Your task to perform on an android device: toggle javascript in the chrome app Image 0: 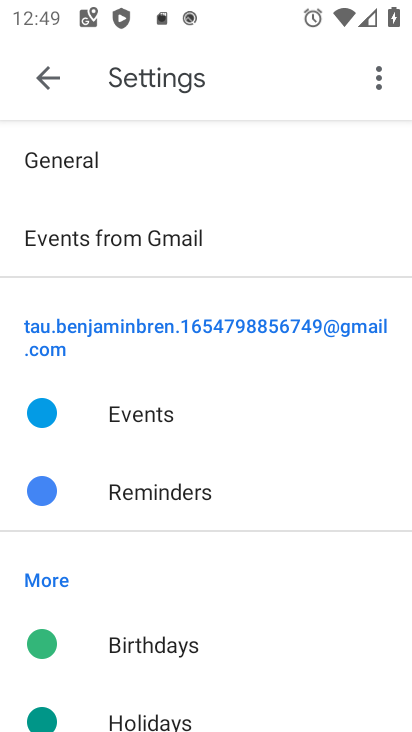
Step 0: press home button
Your task to perform on an android device: toggle javascript in the chrome app Image 1: 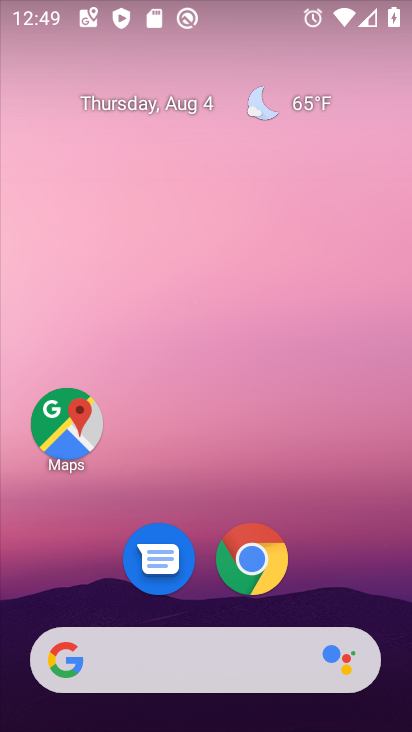
Step 1: click (254, 558)
Your task to perform on an android device: toggle javascript in the chrome app Image 2: 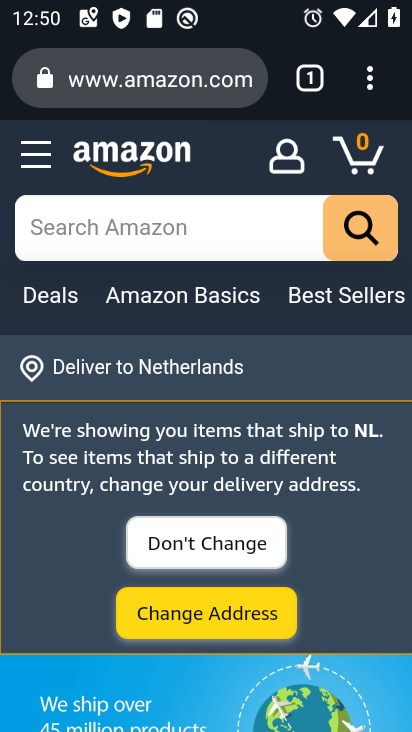
Step 2: click (369, 82)
Your task to perform on an android device: toggle javascript in the chrome app Image 3: 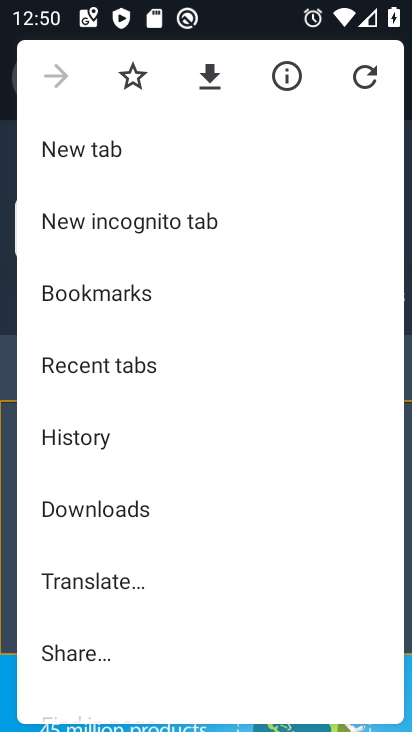
Step 3: drag from (127, 601) to (193, 489)
Your task to perform on an android device: toggle javascript in the chrome app Image 4: 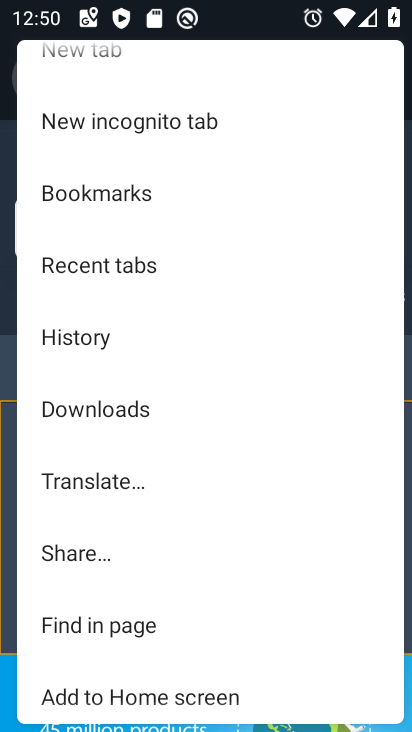
Step 4: drag from (119, 672) to (222, 555)
Your task to perform on an android device: toggle javascript in the chrome app Image 5: 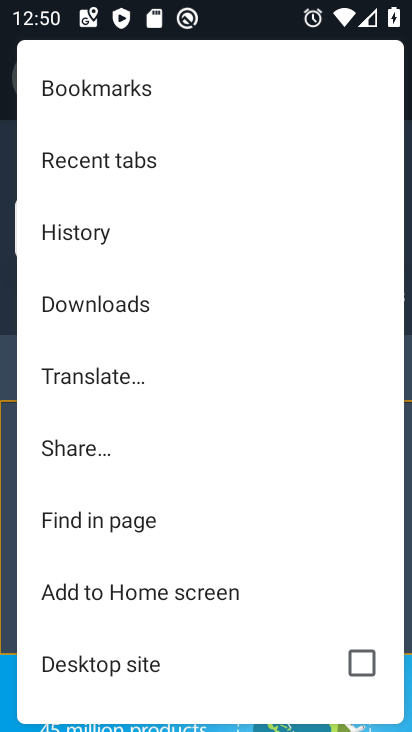
Step 5: drag from (163, 622) to (286, 452)
Your task to perform on an android device: toggle javascript in the chrome app Image 6: 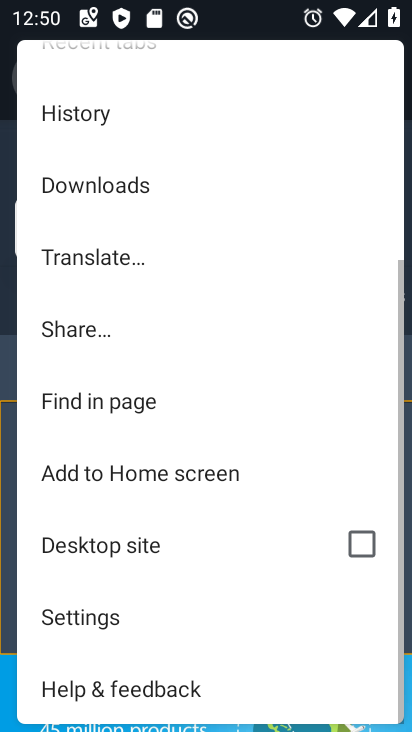
Step 6: click (111, 624)
Your task to perform on an android device: toggle javascript in the chrome app Image 7: 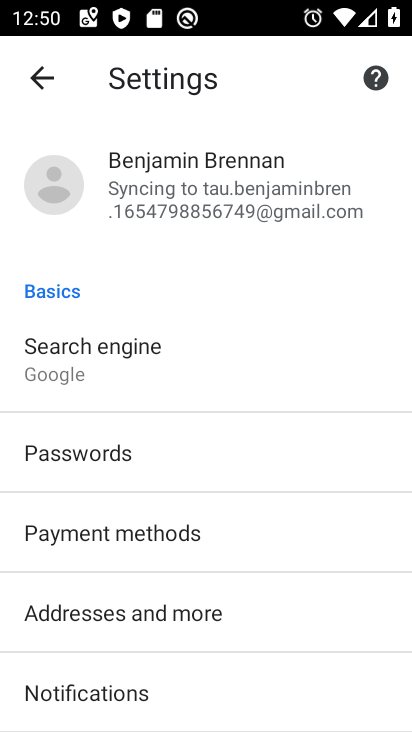
Step 7: drag from (125, 663) to (216, 547)
Your task to perform on an android device: toggle javascript in the chrome app Image 8: 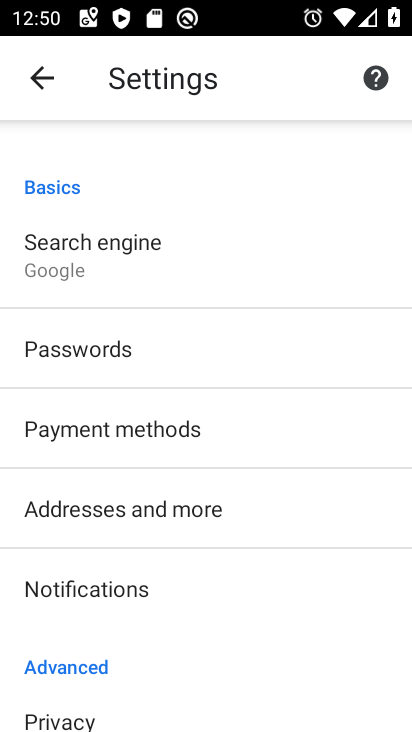
Step 8: drag from (153, 634) to (239, 503)
Your task to perform on an android device: toggle javascript in the chrome app Image 9: 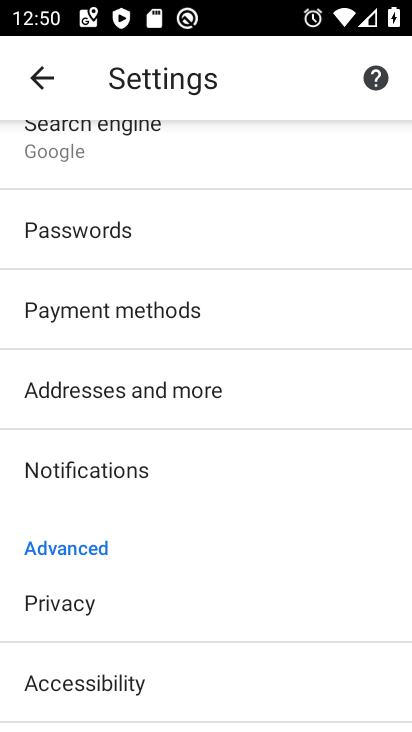
Step 9: drag from (105, 642) to (163, 510)
Your task to perform on an android device: toggle javascript in the chrome app Image 10: 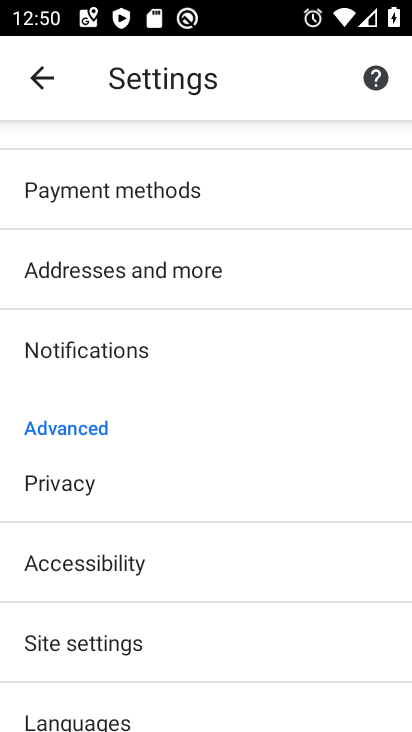
Step 10: click (118, 643)
Your task to perform on an android device: toggle javascript in the chrome app Image 11: 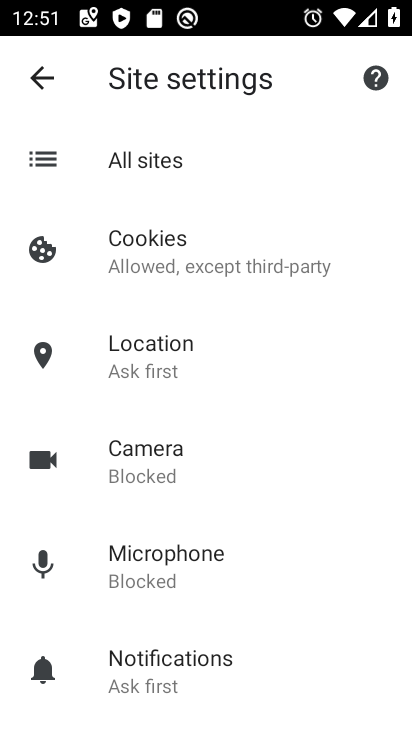
Step 11: drag from (168, 603) to (214, 476)
Your task to perform on an android device: toggle javascript in the chrome app Image 12: 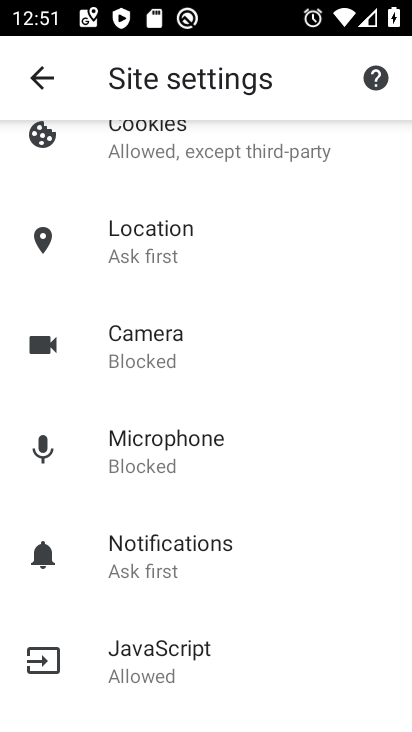
Step 12: click (174, 648)
Your task to perform on an android device: toggle javascript in the chrome app Image 13: 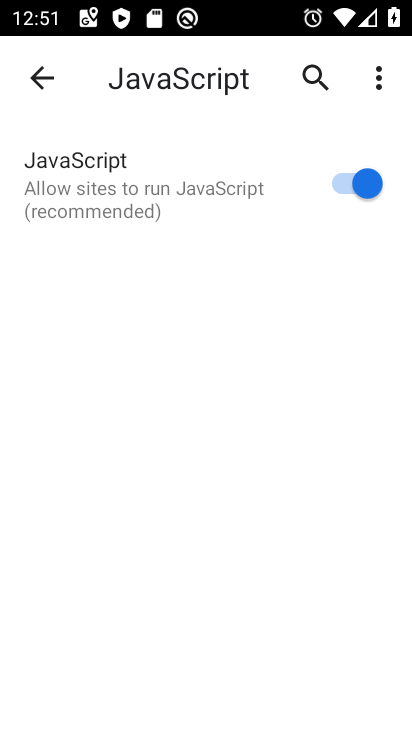
Step 13: click (338, 182)
Your task to perform on an android device: toggle javascript in the chrome app Image 14: 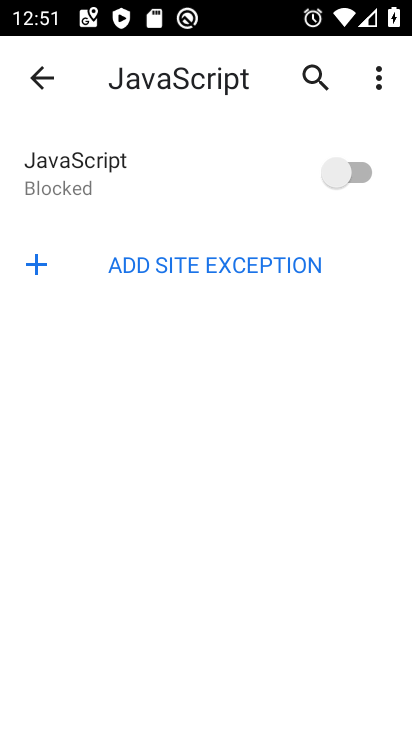
Step 14: task complete